Your task to perform on an android device: What is the news today? Image 0: 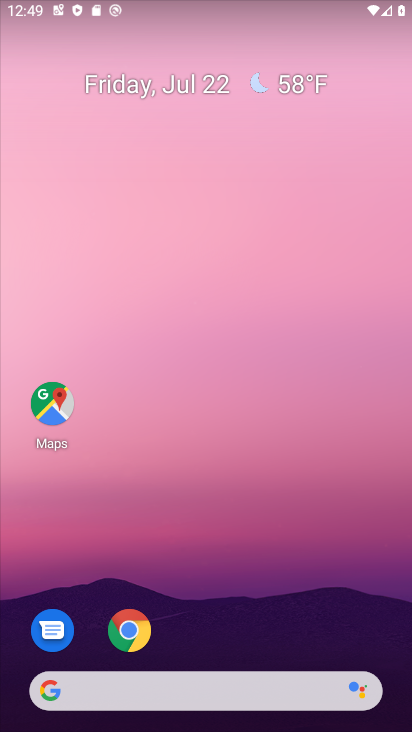
Step 0: click (125, 649)
Your task to perform on an android device: What is the news today? Image 1: 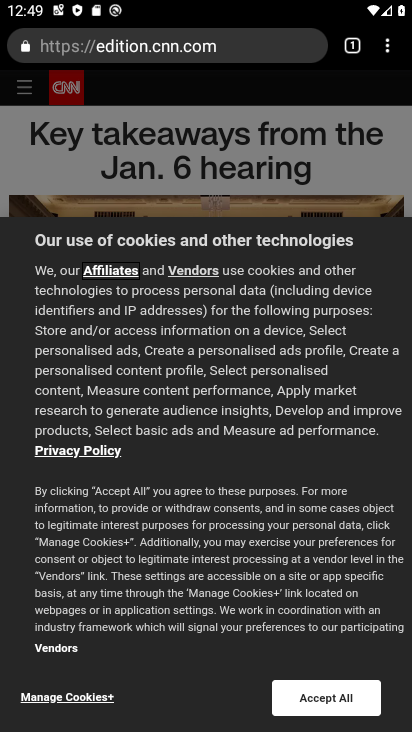
Step 1: click (175, 54)
Your task to perform on an android device: What is the news today? Image 2: 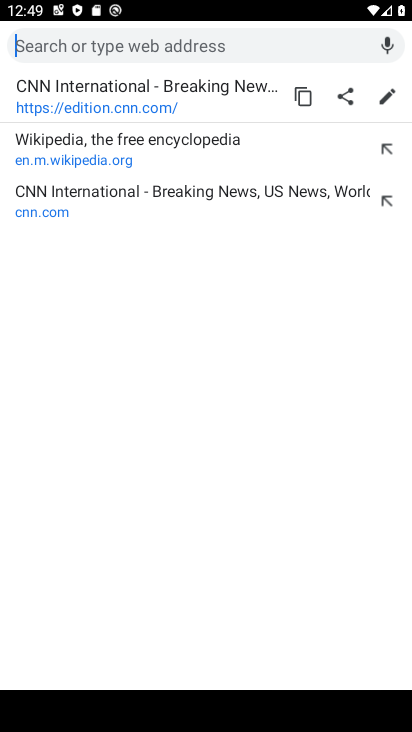
Step 2: type "What is the news today?"
Your task to perform on an android device: What is the news today? Image 3: 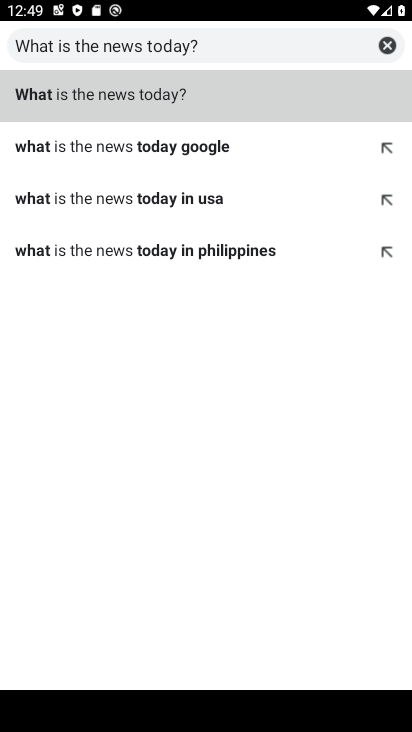
Step 3: click (125, 107)
Your task to perform on an android device: What is the news today? Image 4: 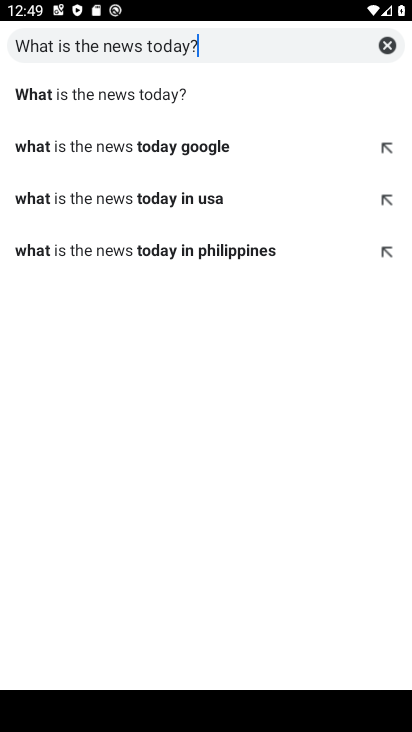
Step 4: click (94, 93)
Your task to perform on an android device: What is the news today? Image 5: 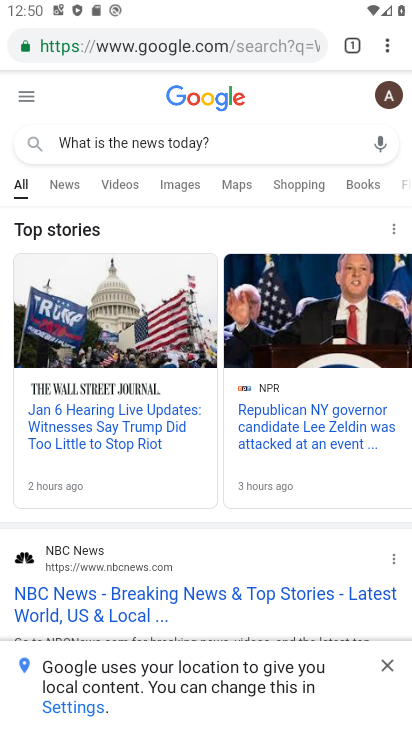
Step 5: task complete